Your task to perform on an android device: Search for Mexican restaurants on Maps Image 0: 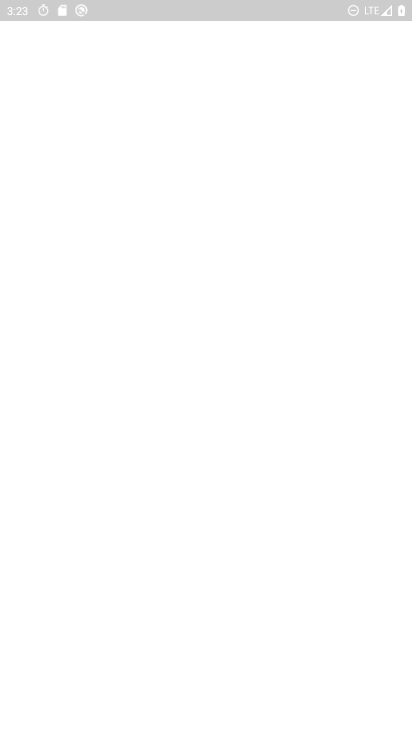
Step 0: drag from (208, 616) to (242, 216)
Your task to perform on an android device: Search for Mexican restaurants on Maps Image 1: 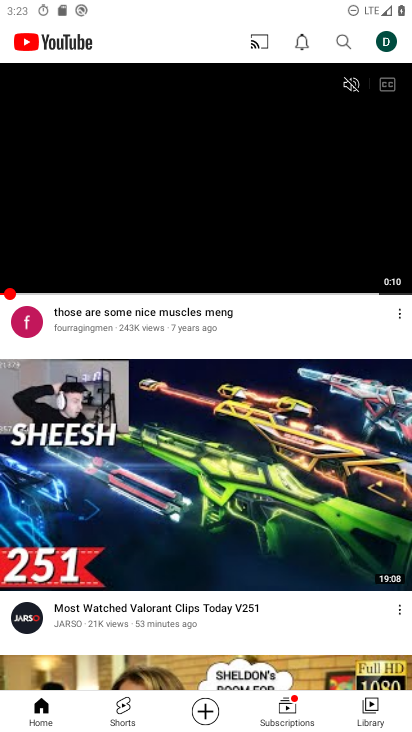
Step 1: press home button
Your task to perform on an android device: Search for Mexican restaurants on Maps Image 2: 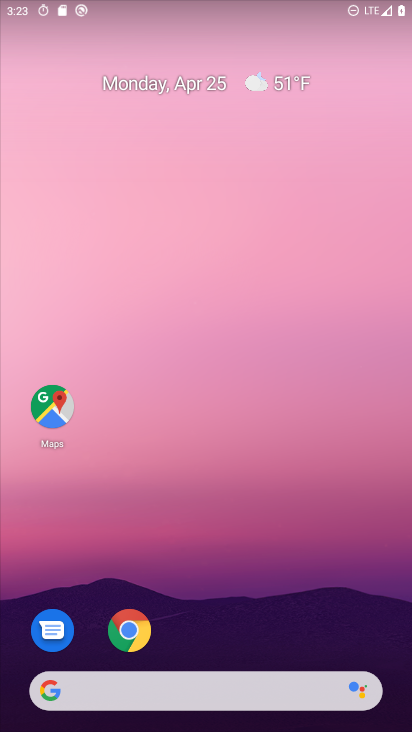
Step 2: click (57, 414)
Your task to perform on an android device: Search for Mexican restaurants on Maps Image 3: 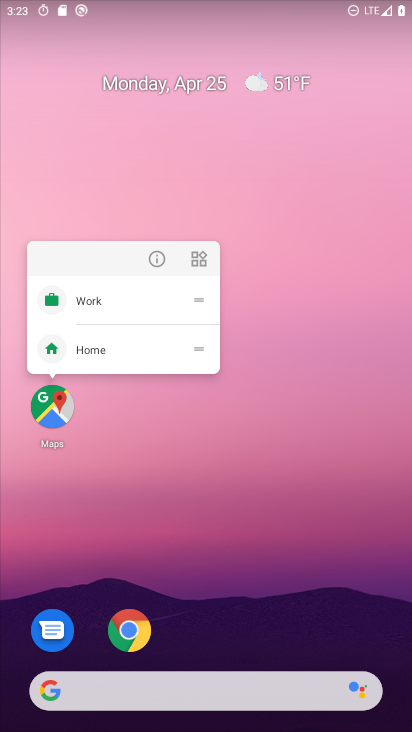
Step 3: click (169, 255)
Your task to perform on an android device: Search for Mexican restaurants on Maps Image 4: 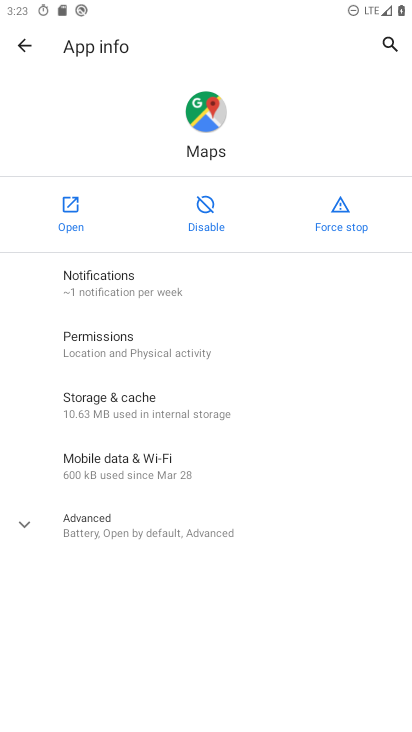
Step 4: click (57, 202)
Your task to perform on an android device: Search for Mexican restaurants on Maps Image 5: 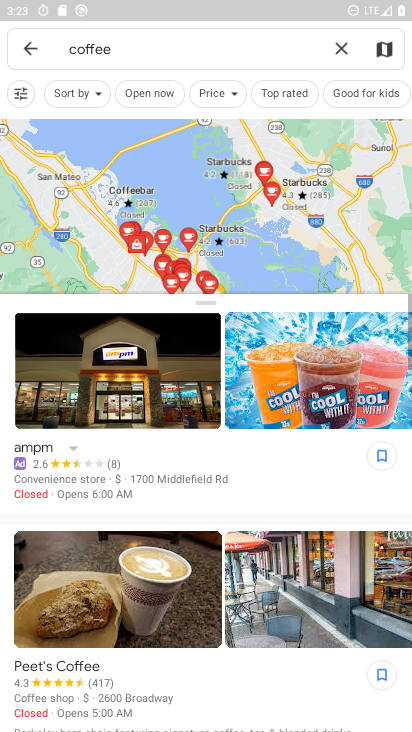
Step 5: drag from (229, 648) to (251, 254)
Your task to perform on an android device: Search for Mexican restaurants on Maps Image 6: 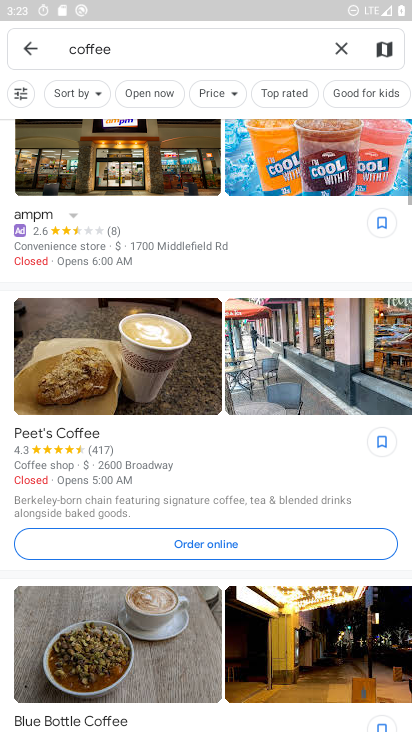
Step 6: drag from (242, 457) to (246, 243)
Your task to perform on an android device: Search for Mexican restaurants on Maps Image 7: 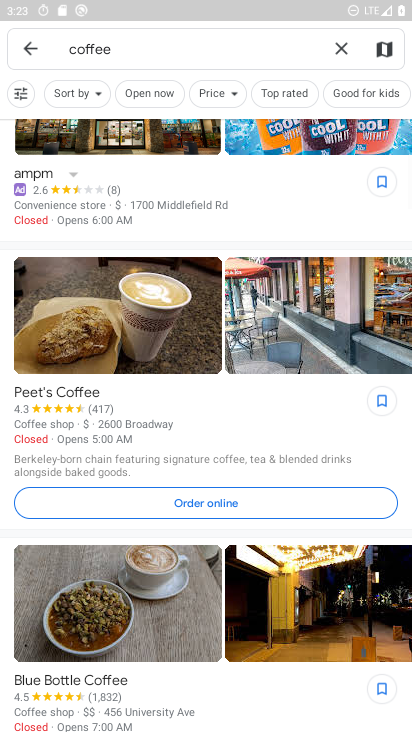
Step 7: drag from (223, 277) to (245, 535)
Your task to perform on an android device: Search for Mexican restaurants on Maps Image 8: 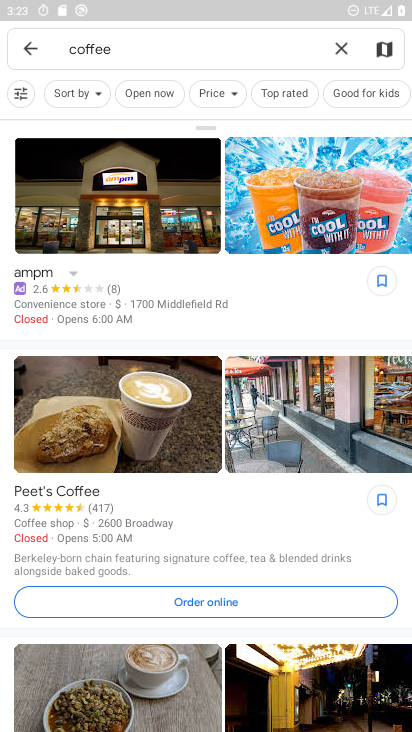
Step 8: click (334, 52)
Your task to perform on an android device: Search for Mexican restaurants on Maps Image 9: 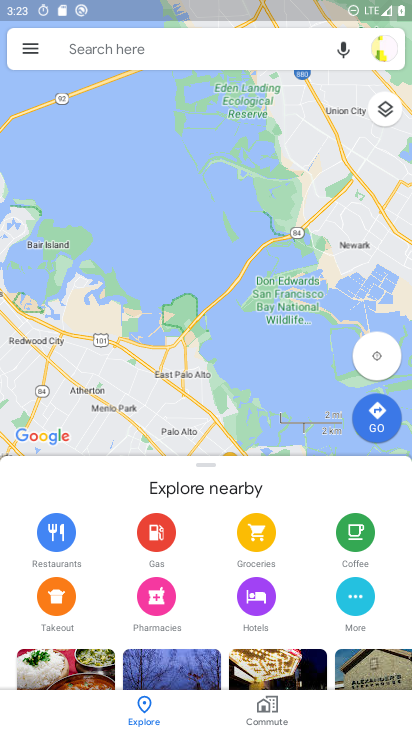
Step 9: click (158, 52)
Your task to perform on an android device: Search for Mexican restaurants on Maps Image 10: 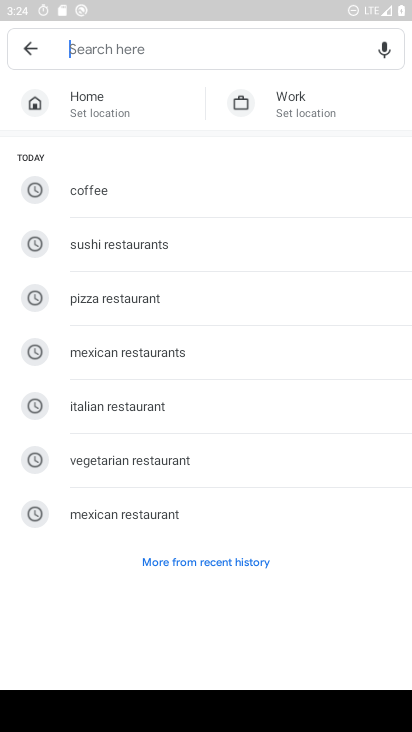
Step 10: click (148, 522)
Your task to perform on an android device: Search for Mexican restaurants on Maps Image 11: 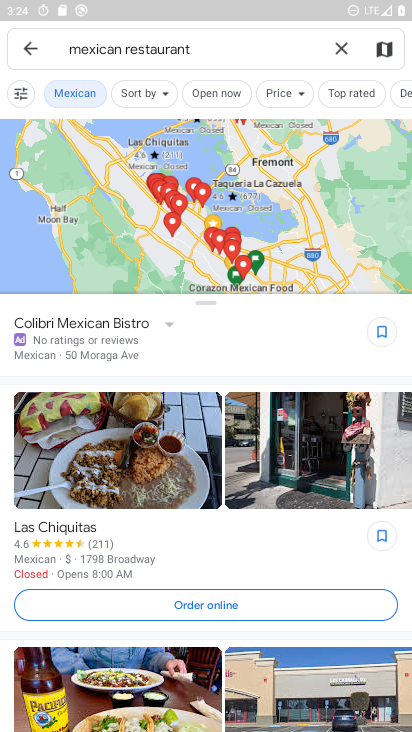
Step 11: task complete